Your task to perform on an android device: Clear all items from cart on ebay. Search for dell alienware on ebay, select the first entry, and add it to the cart. Image 0: 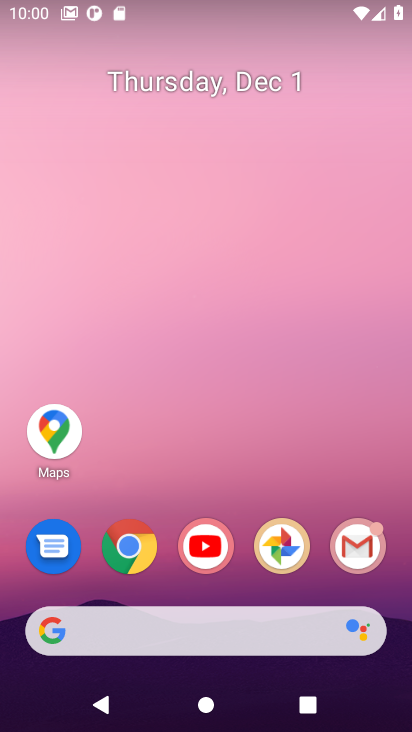
Step 0: click (134, 556)
Your task to perform on an android device: Clear all items from cart on ebay. Search for dell alienware on ebay, select the first entry, and add it to the cart. Image 1: 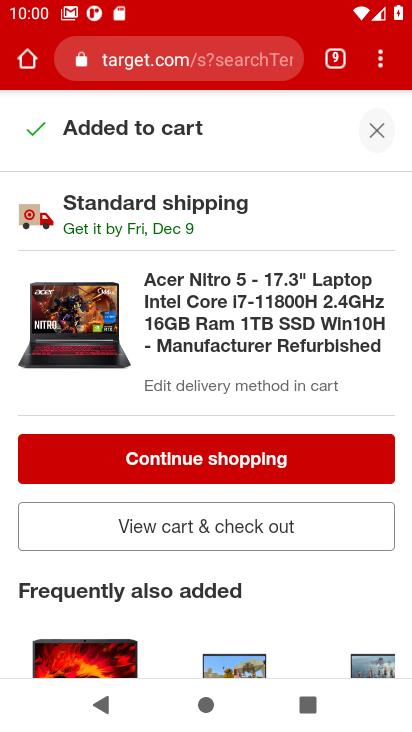
Step 1: click (181, 61)
Your task to perform on an android device: Clear all items from cart on ebay. Search for dell alienware on ebay, select the first entry, and add it to the cart. Image 2: 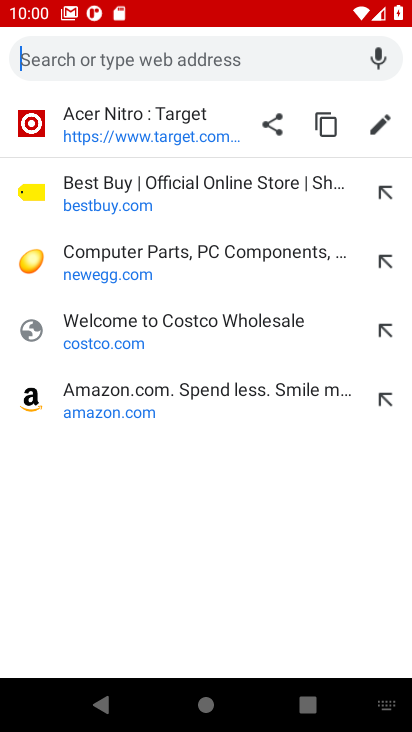
Step 2: type "ebay.com"
Your task to perform on an android device: Clear all items from cart on ebay. Search for dell alienware on ebay, select the first entry, and add it to the cart. Image 3: 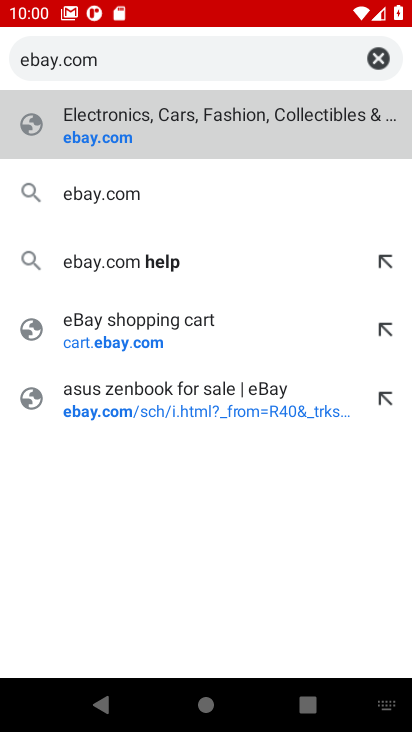
Step 3: click (86, 146)
Your task to perform on an android device: Clear all items from cart on ebay. Search for dell alienware on ebay, select the first entry, and add it to the cart. Image 4: 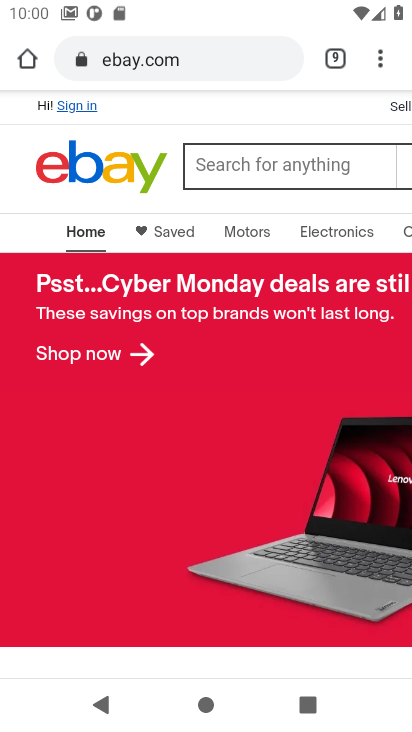
Step 4: drag from (315, 203) to (5, 173)
Your task to perform on an android device: Clear all items from cart on ebay. Search for dell alienware on ebay, select the first entry, and add it to the cart. Image 5: 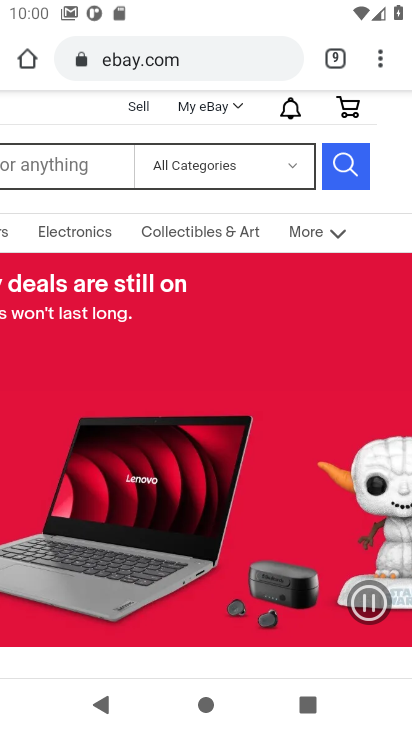
Step 5: click (354, 111)
Your task to perform on an android device: Clear all items from cart on ebay. Search for dell alienware on ebay, select the first entry, and add it to the cart. Image 6: 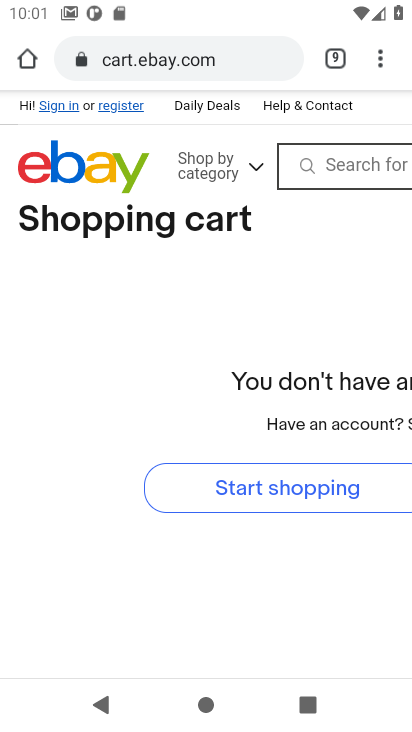
Step 6: click (337, 166)
Your task to perform on an android device: Clear all items from cart on ebay. Search for dell alienware on ebay, select the first entry, and add it to the cart. Image 7: 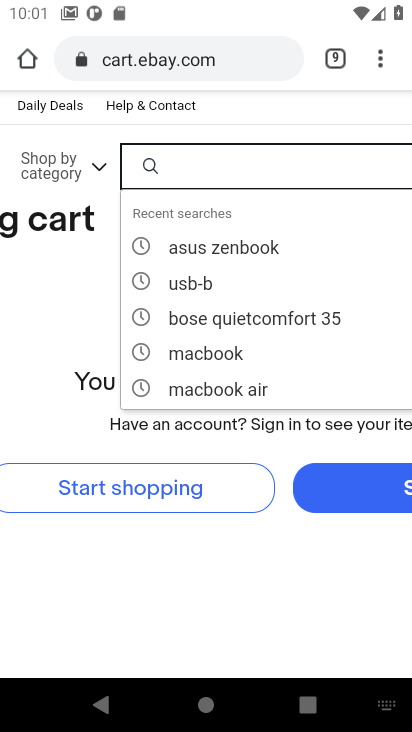
Step 7: type "dell alienware"
Your task to perform on an android device: Clear all items from cart on ebay. Search for dell alienware on ebay, select the first entry, and add it to the cart. Image 8: 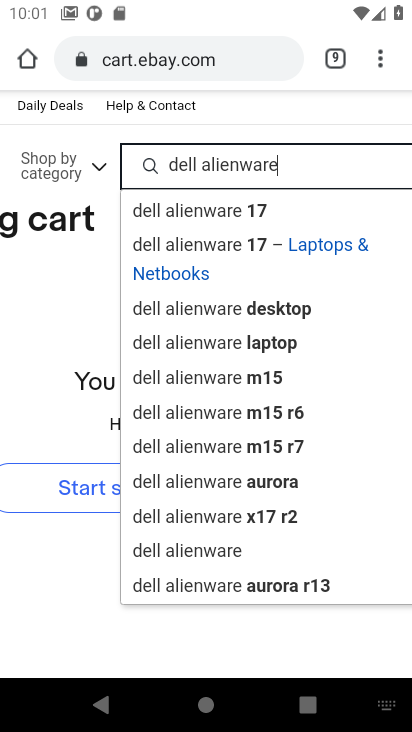
Step 8: click (174, 549)
Your task to perform on an android device: Clear all items from cart on ebay. Search for dell alienware on ebay, select the first entry, and add it to the cart. Image 9: 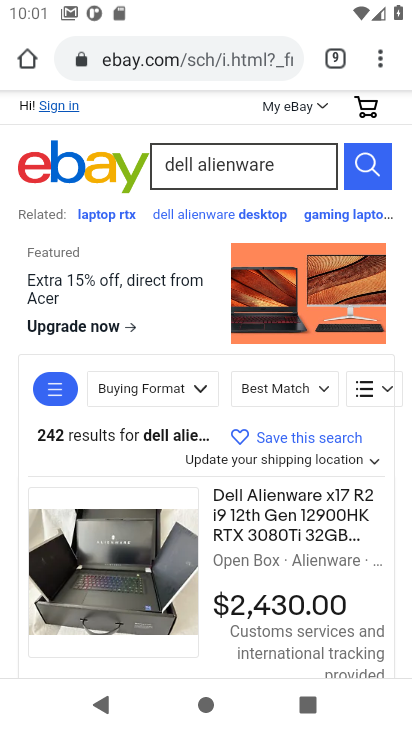
Step 9: drag from (194, 455) to (186, 226)
Your task to perform on an android device: Clear all items from cart on ebay. Search for dell alienware on ebay, select the first entry, and add it to the cart. Image 10: 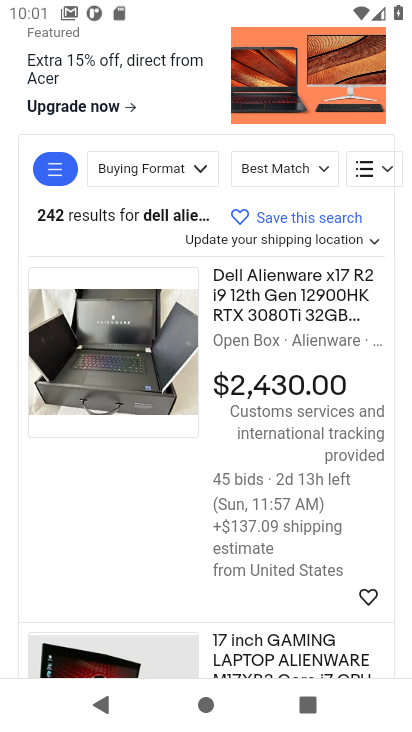
Step 10: click (250, 290)
Your task to perform on an android device: Clear all items from cart on ebay. Search for dell alienware on ebay, select the first entry, and add it to the cart. Image 11: 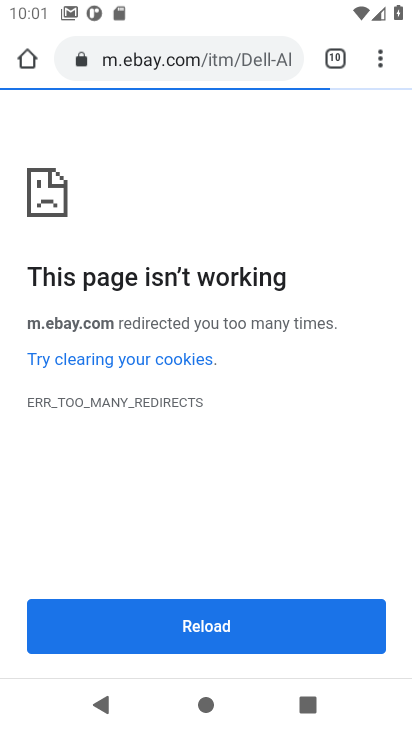
Step 11: task complete